Your task to perform on an android device: check google app version Image 0: 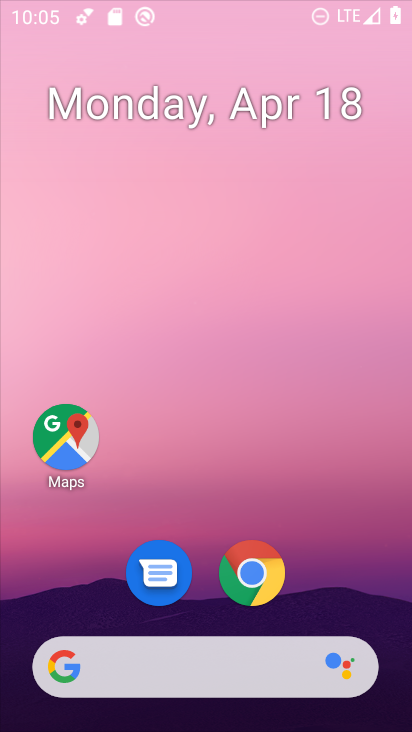
Step 0: drag from (363, 595) to (246, 47)
Your task to perform on an android device: check google app version Image 1: 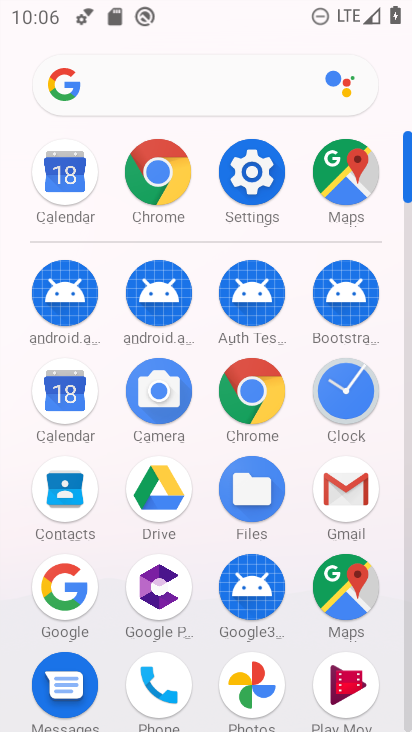
Step 1: click (54, 596)
Your task to perform on an android device: check google app version Image 2: 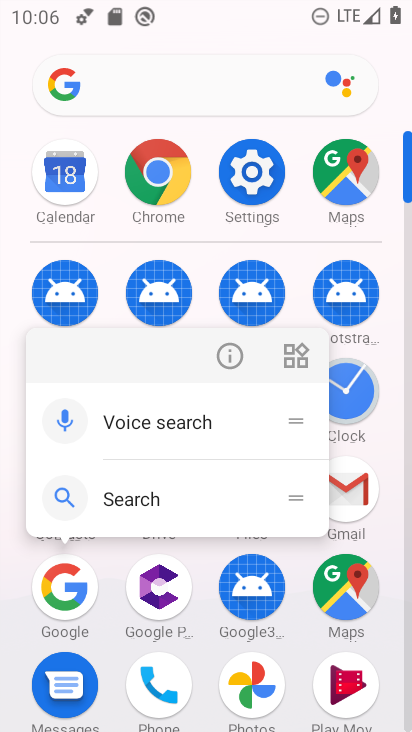
Step 2: click (229, 356)
Your task to perform on an android device: check google app version Image 3: 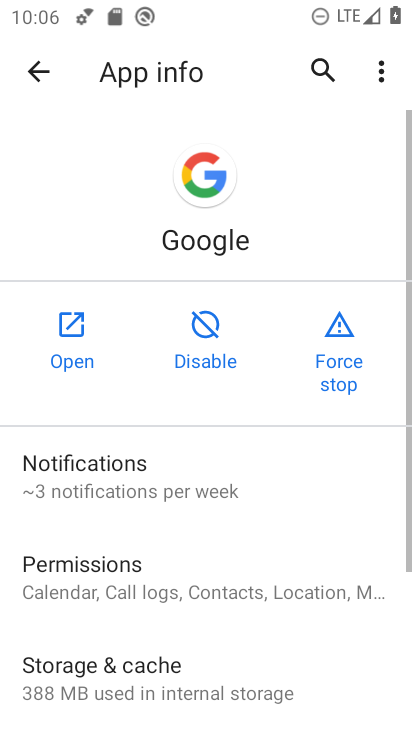
Step 3: drag from (204, 621) to (92, 69)
Your task to perform on an android device: check google app version Image 4: 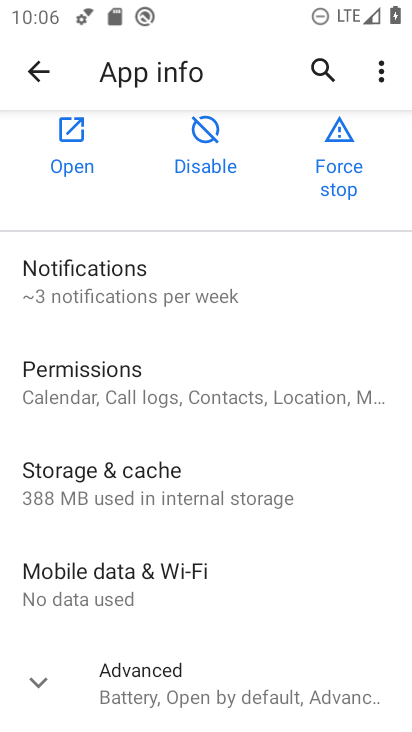
Step 4: click (37, 664)
Your task to perform on an android device: check google app version Image 5: 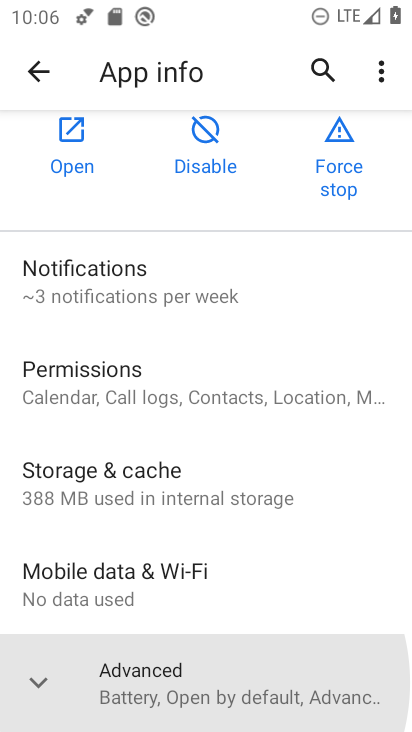
Step 5: task complete